Your task to perform on an android device: Search for sushi restaurants on Maps Image 0: 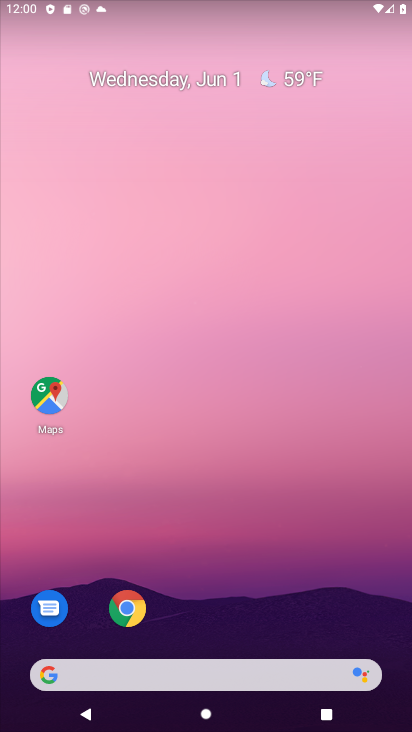
Step 0: click (48, 384)
Your task to perform on an android device: Search for sushi restaurants on Maps Image 1: 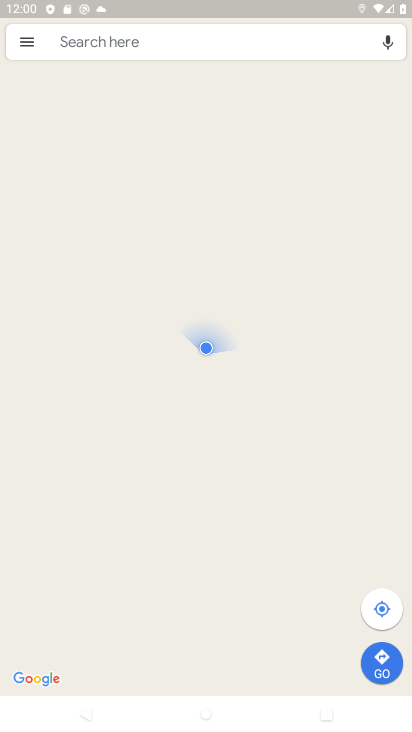
Step 1: click (154, 37)
Your task to perform on an android device: Search for sushi restaurants on Maps Image 2: 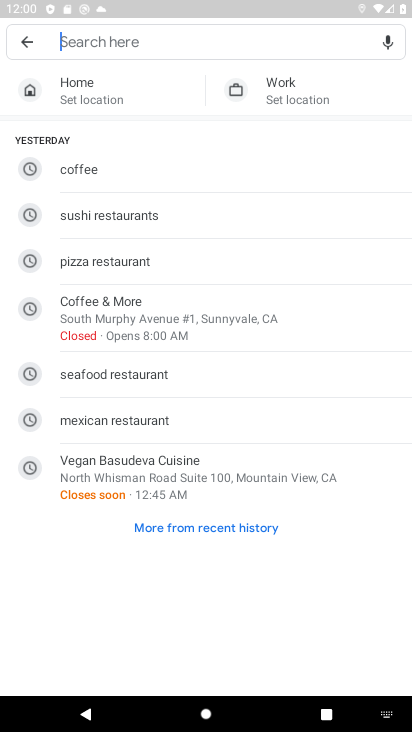
Step 2: type "Sushi restaurants"
Your task to perform on an android device: Search for sushi restaurants on Maps Image 3: 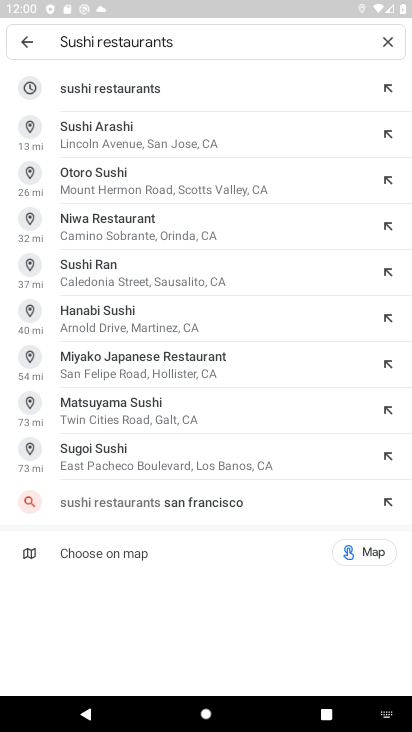
Step 3: click (130, 97)
Your task to perform on an android device: Search for sushi restaurants on Maps Image 4: 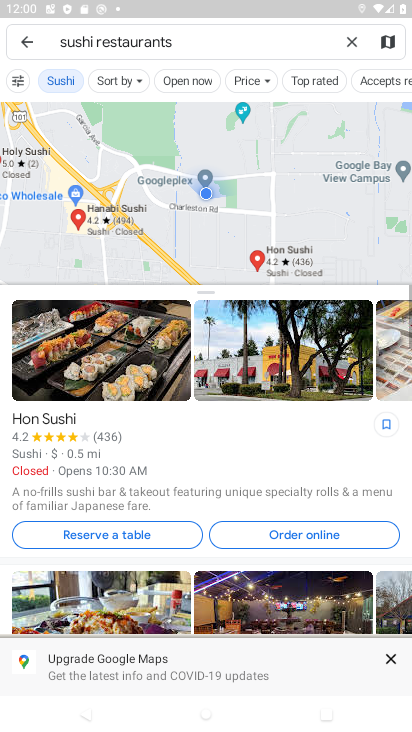
Step 4: task complete